Your task to perform on an android device: delete a single message in the gmail app Image 0: 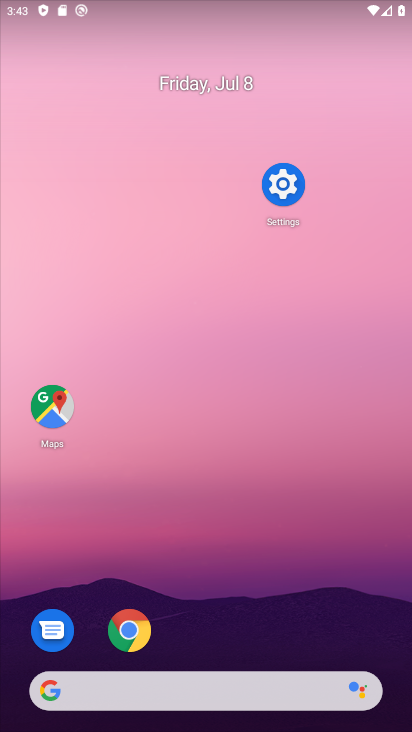
Step 0: drag from (245, 607) to (256, 97)
Your task to perform on an android device: delete a single message in the gmail app Image 1: 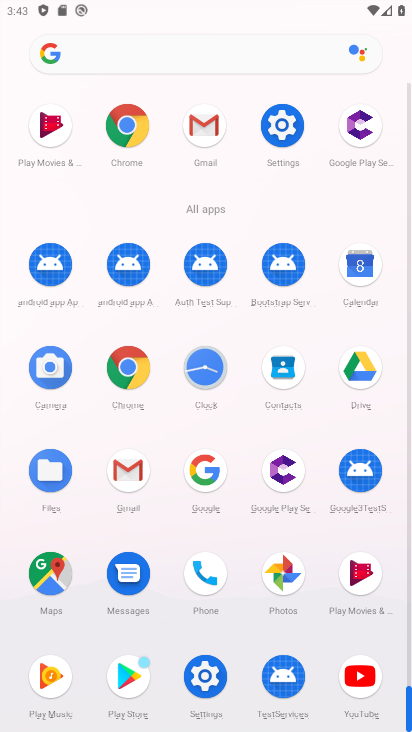
Step 1: drag from (204, 127) to (78, 198)
Your task to perform on an android device: delete a single message in the gmail app Image 2: 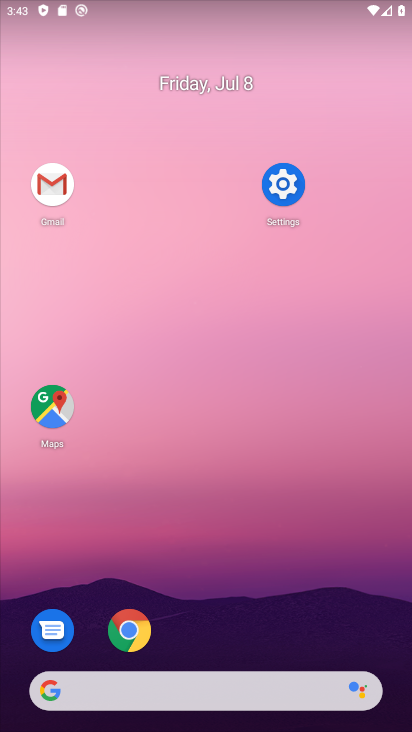
Step 2: click (61, 182)
Your task to perform on an android device: delete a single message in the gmail app Image 3: 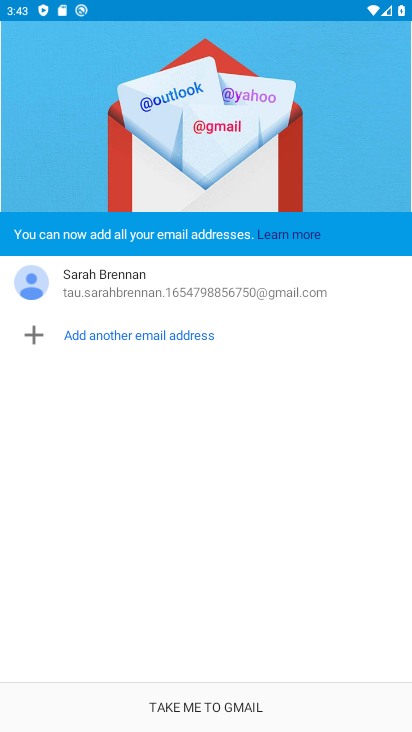
Step 3: click (247, 702)
Your task to perform on an android device: delete a single message in the gmail app Image 4: 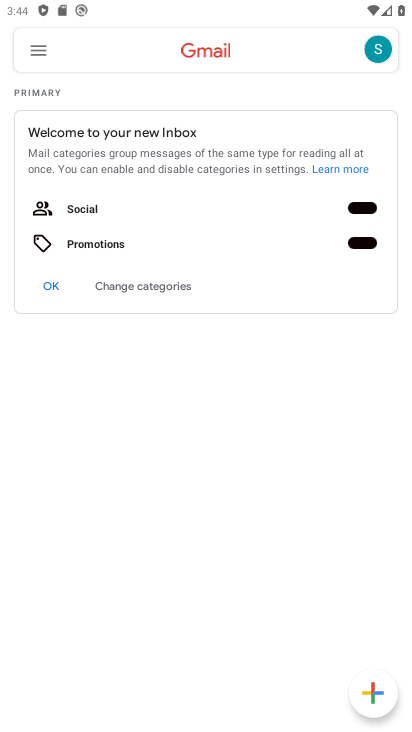
Step 4: click (29, 54)
Your task to perform on an android device: delete a single message in the gmail app Image 5: 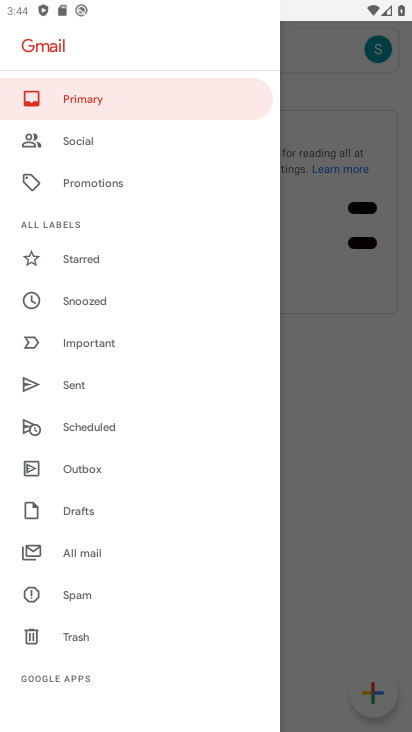
Step 5: click (109, 542)
Your task to perform on an android device: delete a single message in the gmail app Image 6: 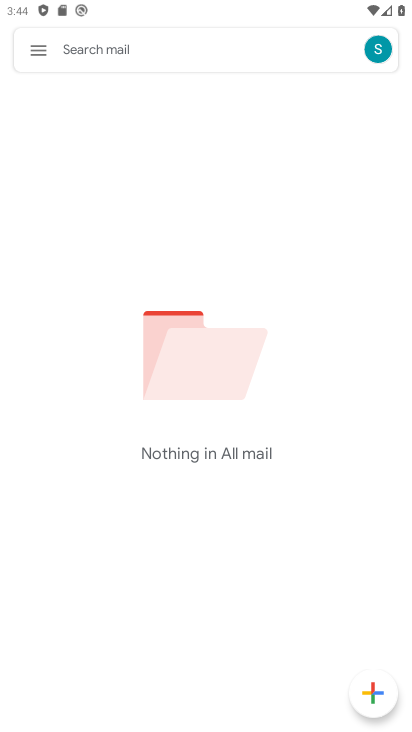
Step 6: task complete